Your task to perform on an android device: Open Youtube and go to "Your channel" Image 0: 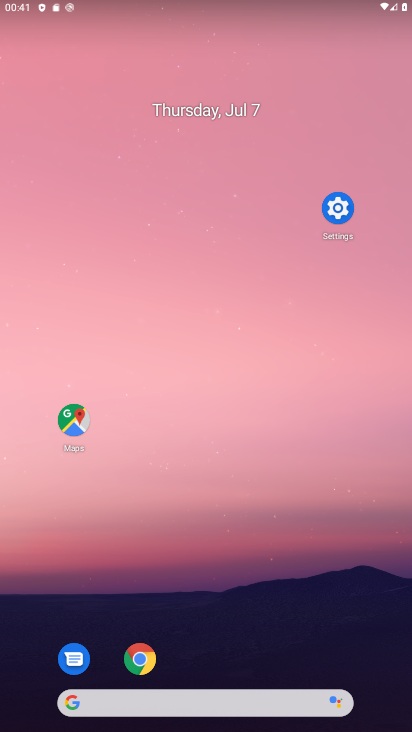
Step 0: click (174, 140)
Your task to perform on an android device: Open Youtube and go to "Your channel" Image 1: 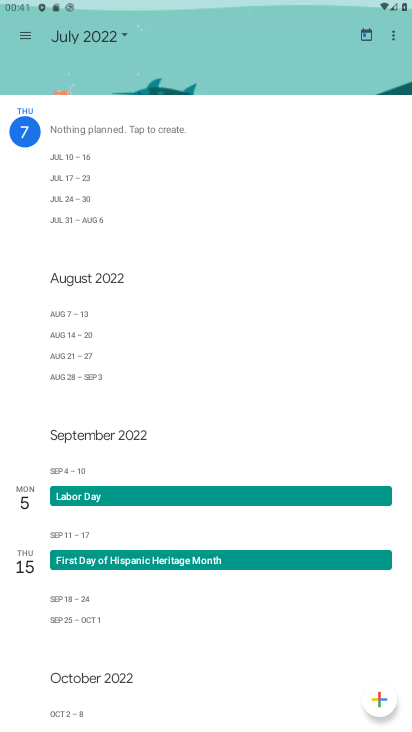
Step 1: drag from (229, 469) to (131, 59)
Your task to perform on an android device: Open Youtube and go to "Your channel" Image 2: 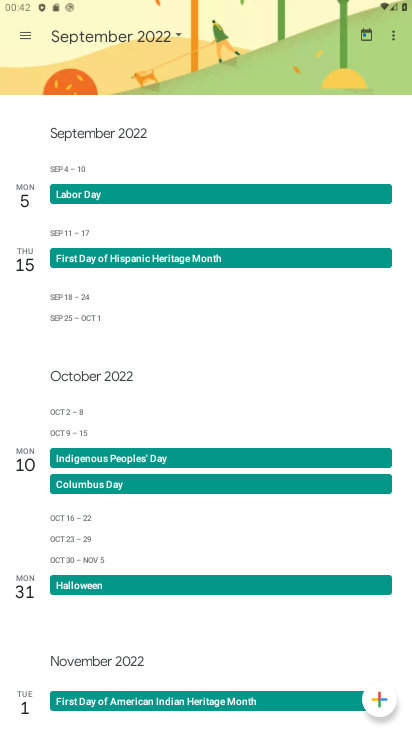
Step 2: press back button
Your task to perform on an android device: Open Youtube and go to "Your channel" Image 3: 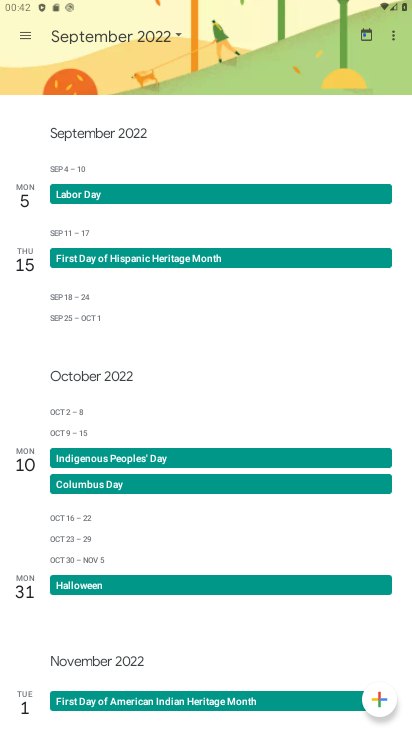
Step 3: press back button
Your task to perform on an android device: Open Youtube and go to "Your channel" Image 4: 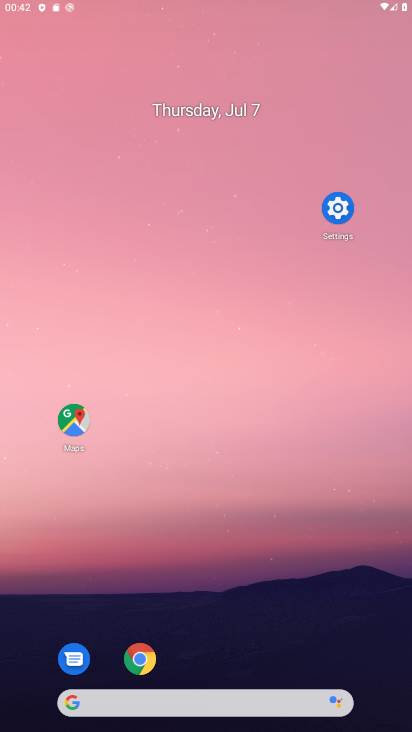
Step 4: press home button
Your task to perform on an android device: Open Youtube and go to "Your channel" Image 5: 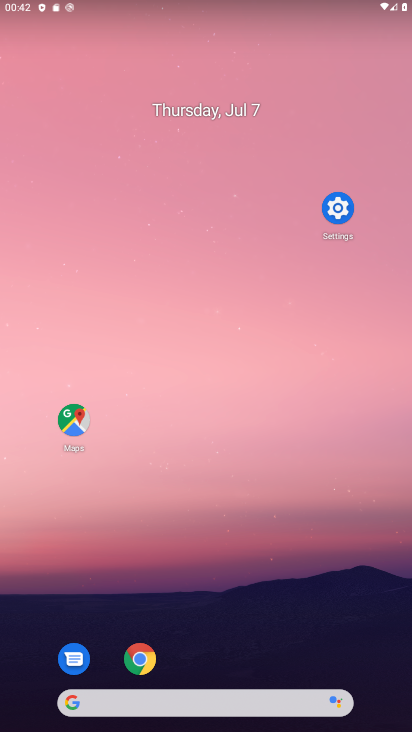
Step 5: drag from (269, 705) to (176, 46)
Your task to perform on an android device: Open Youtube and go to "Your channel" Image 6: 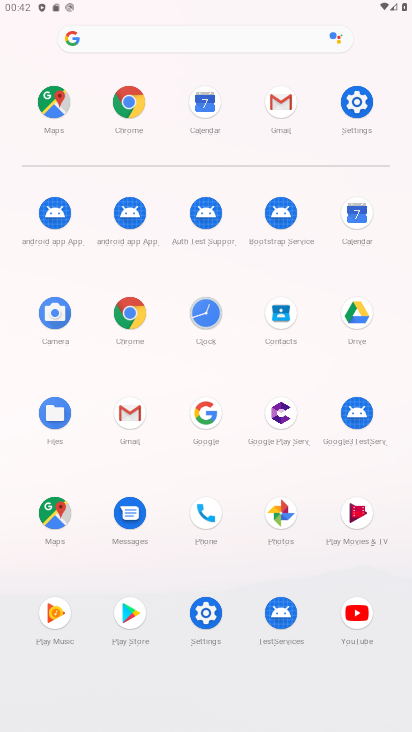
Step 6: click (374, 613)
Your task to perform on an android device: Open Youtube and go to "Your channel" Image 7: 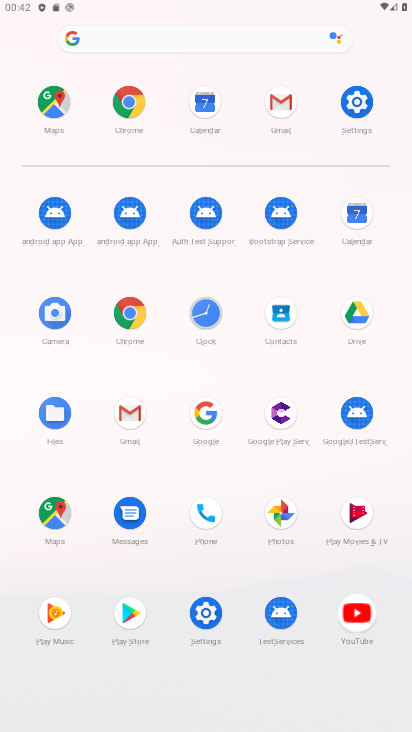
Step 7: click (375, 614)
Your task to perform on an android device: Open Youtube and go to "Your channel" Image 8: 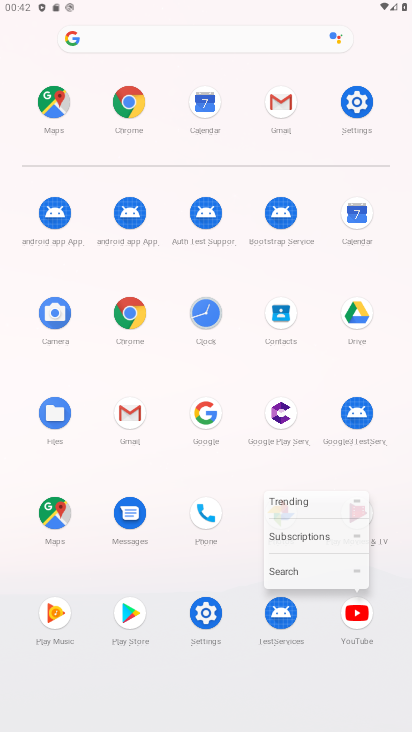
Step 8: click (375, 614)
Your task to perform on an android device: Open Youtube and go to "Your channel" Image 9: 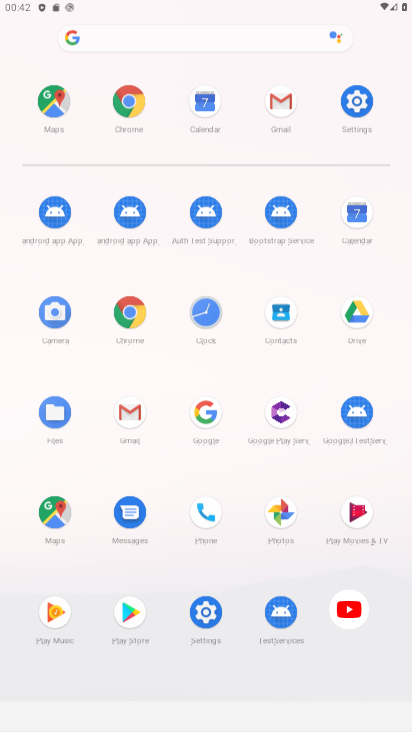
Step 9: click (378, 617)
Your task to perform on an android device: Open Youtube and go to "Your channel" Image 10: 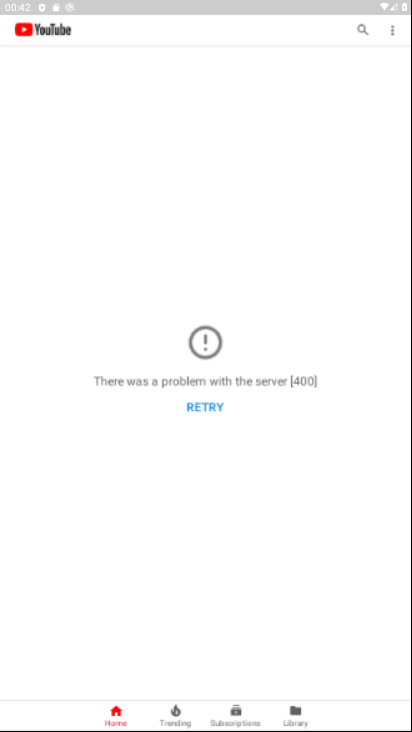
Step 10: click (354, 627)
Your task to perform on an android device: Open Youtube and go to "Your channel" Image 11: 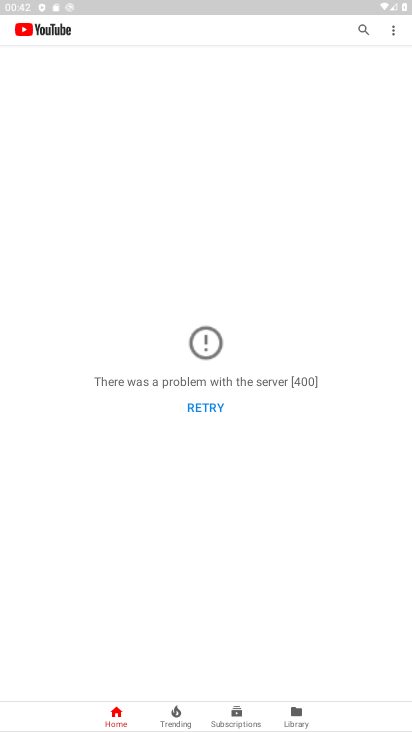
Step 11: click (290, 713)
Your task to perform on an android device: Open Youtube and go to "Your channel" Image 12: 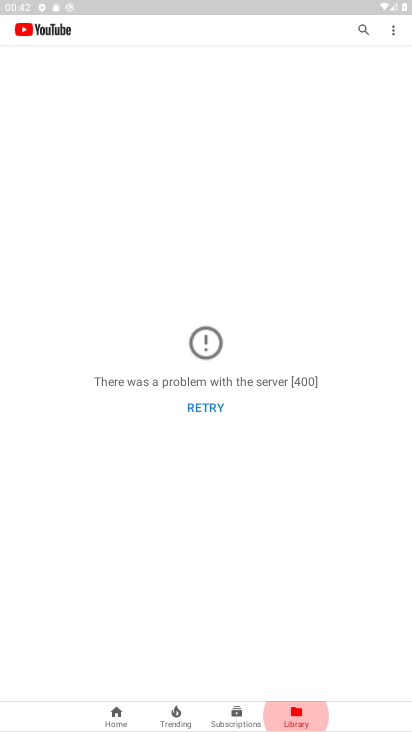
Step 12: click (290, 713)
Your task to perform on an android device: Open Youtube and go to "Your channel" Image 13: 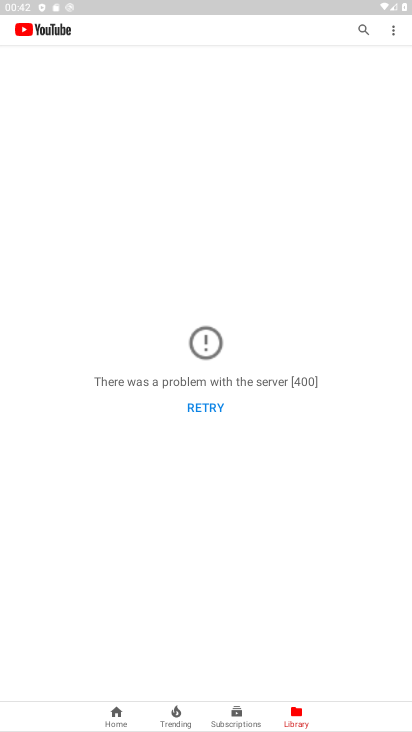
Step 13: click (290, 713)
Your task to perform on an android device: Open Youtube and go to "Your channel" Image 14: 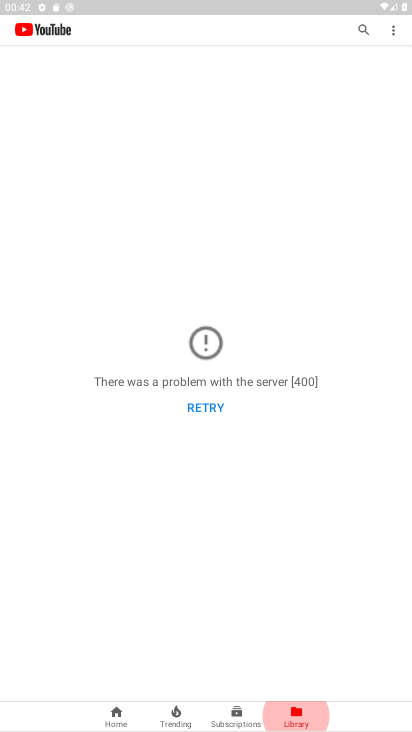
Step 14: click (290, 714)
Your task to perform on an android device: Open Youtube and go to "Your channel" Image 15: 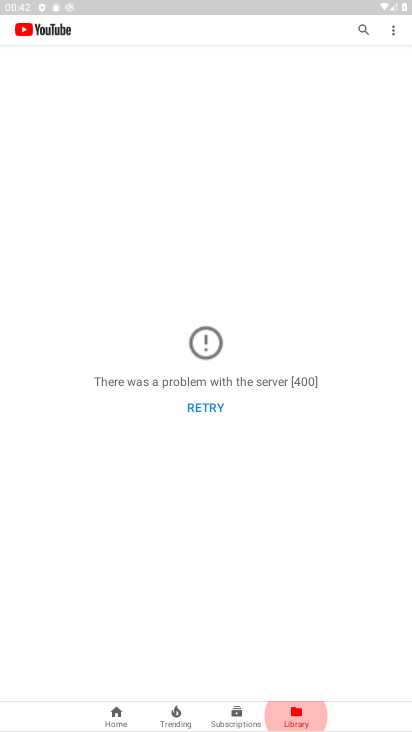
Step 15: click (300, 698)
Your task to perform on an android device: Open Youtube and go to "Your channel" Image 16: 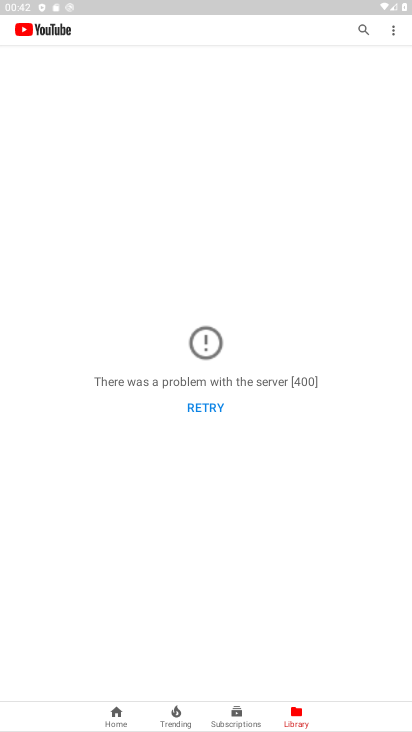
Step 16: task complete